Your task to perform on an android device: Go to display settings Image 0: 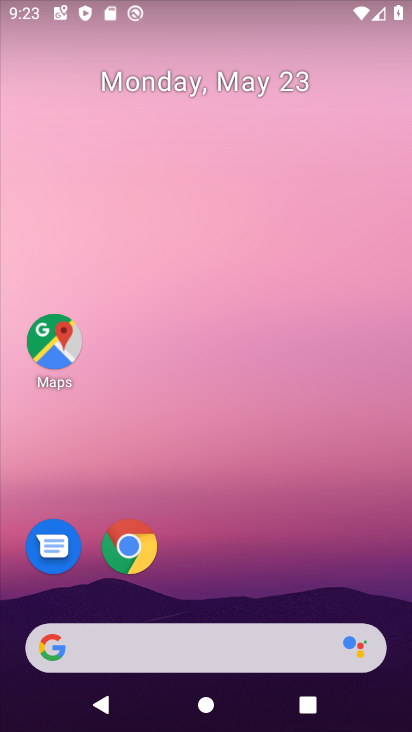
Step 0: drag from (392, 607) to (346, 68)
Your task to perform on an android device: Go to display settings Image 1: 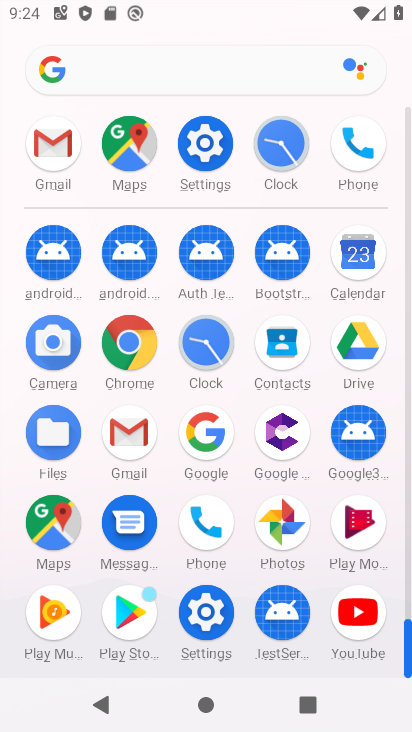
Step 1: click (210, 615)
Your task to perform on an android device: Go to display settings Image 2: 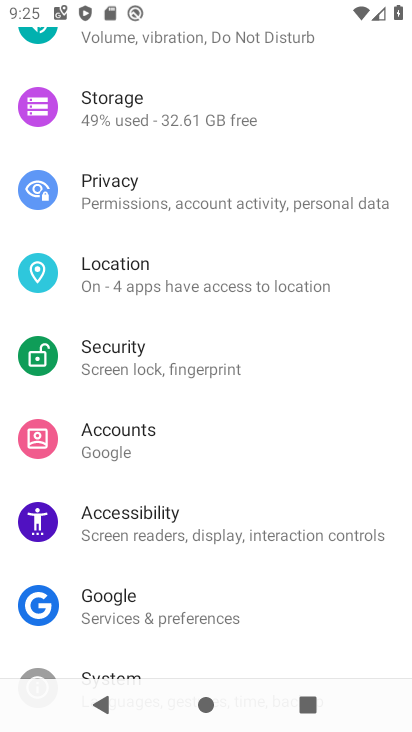
Step 2: drag from (315, 148) to (355, 570)
Your task to perform on an android device: Go to display settings Image 3: 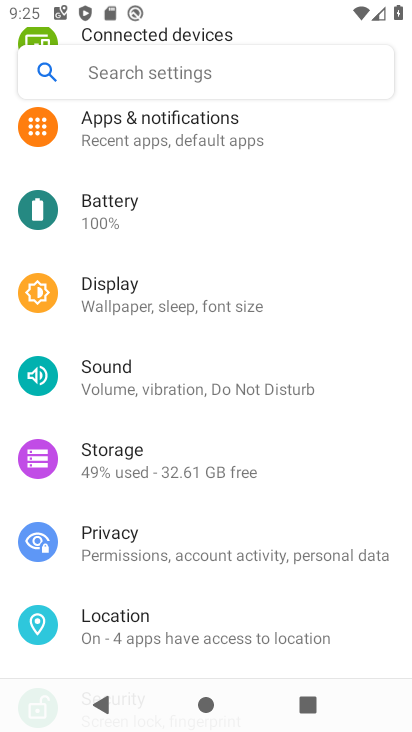
Step 3: click (88, 284)
Your task to perform on an android device: Go to display settings Image 4: 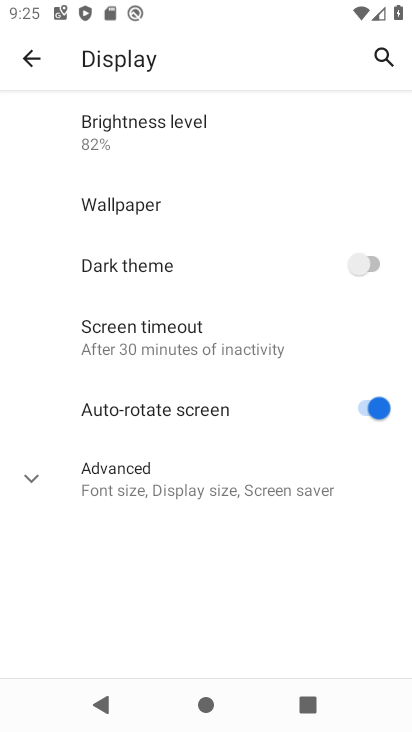
Step 4: task complete